Your task to perform on an android device: Open wifi settings Image 0: 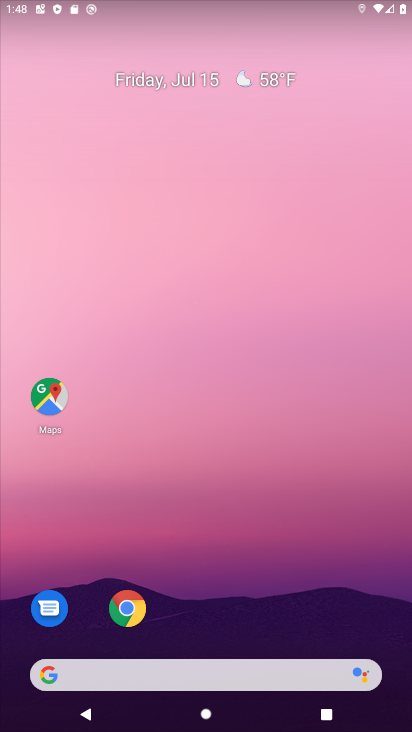
Step 0: drag from (187, 1) to (247, 479)
Your task to perform on an android device: Open wifi settings Image 1: 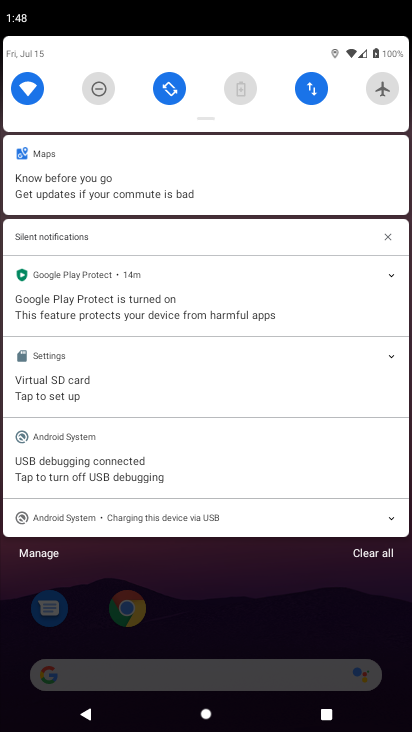
Step 1: click (23, 79)
Your task to perform on an android device: Open wifi settings Image 2: 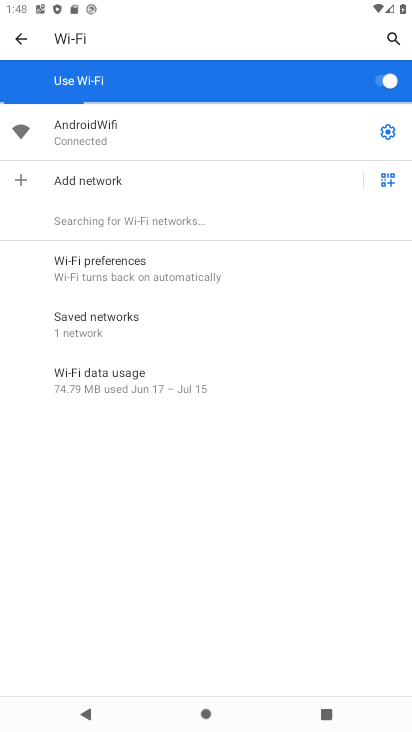
Step 2: task complete